Your task to perform on an android device: Show me popular videos on Youtube Image 0: 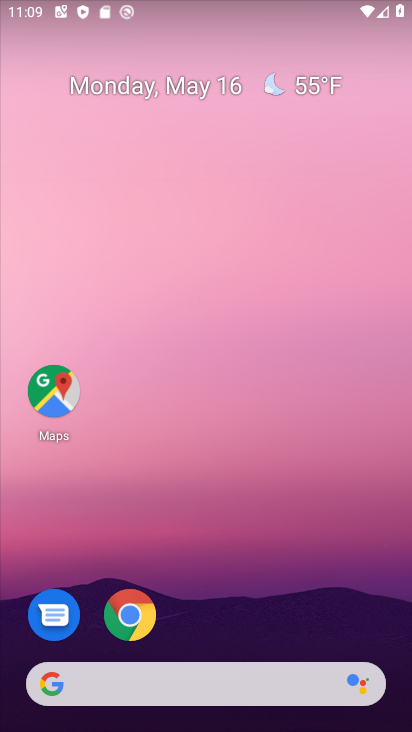
Step 0: drag from (259, 645) to (298, 121)
Your task to perform on an android device: Show me popular videos on Youtube Image 1: 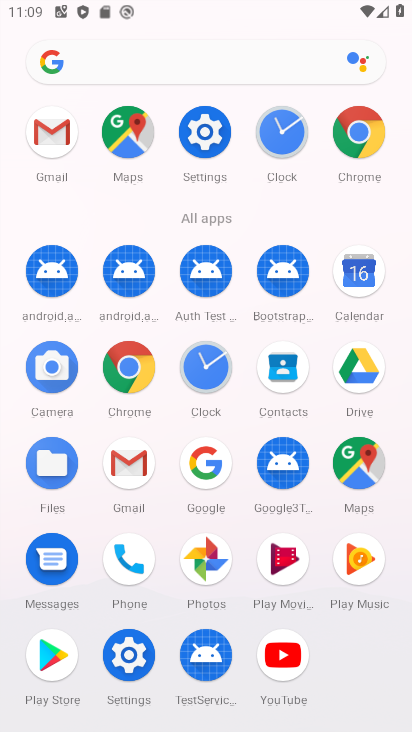
Step 1: click (292, 649)
Your task to perform on an android device: Show me popular videos on Youtube Image 2: 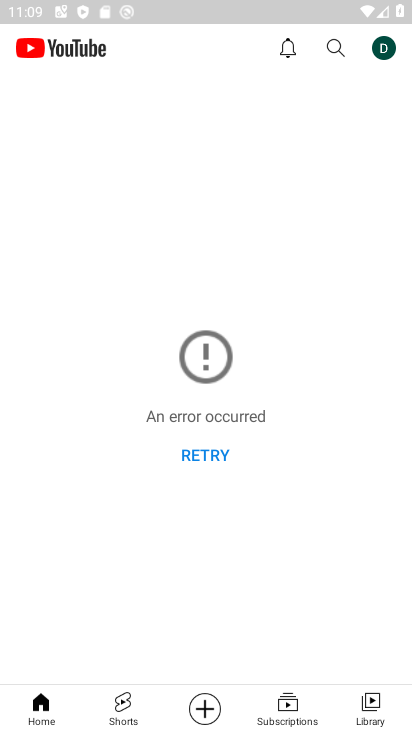
Step 2: click (222, 370)
Your task to perform on an android device: Show me popular videos on Youtube Image 3: 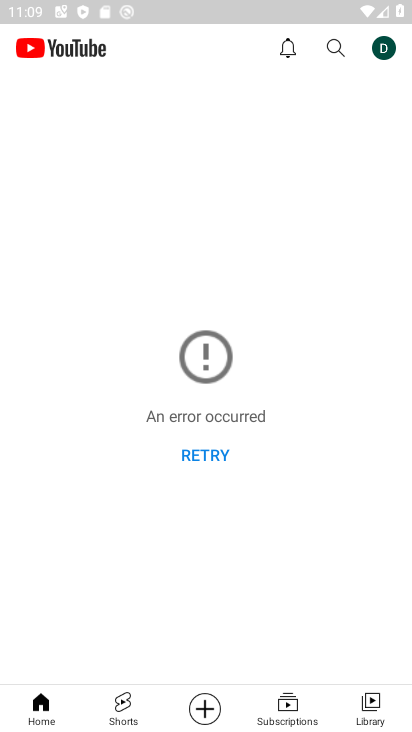
Step 3: task complete